Your task to perform on an android device: delete a single message in the gmail app Image 0: 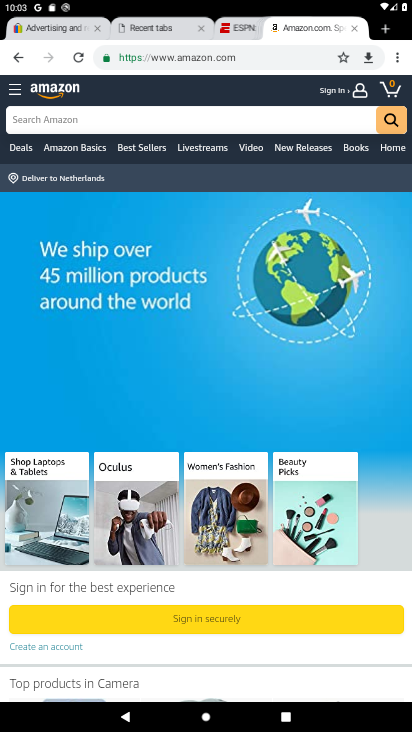
Step 0: click (75, 387)
Your task to perform on an android device: delete a single message in the gmail app Image 1: 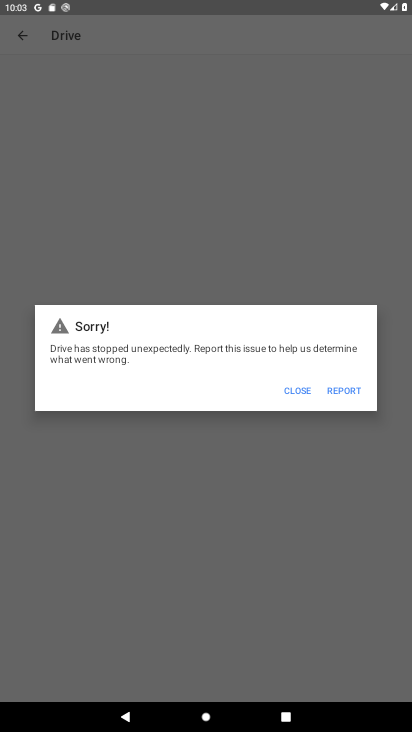
Step 1: press home button
Your task to perform on an android device: delete a single message in the gmail app Image 2: 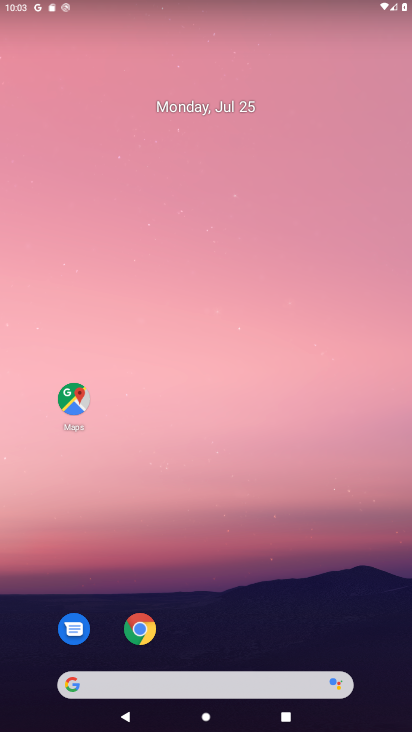
Step 2: drag from (297, 577) to (213, 106)
Your task to perform on an android device: delete a single message in the gmail app Image 3: 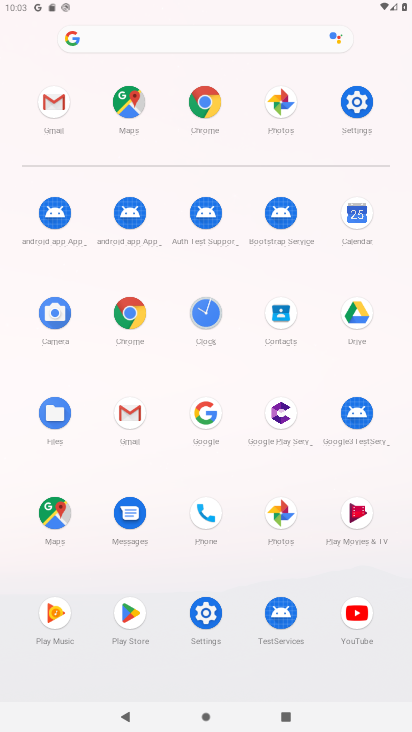
Step 3: drag from (254, 615) to (273, 81)
Your task to perform on an android device: delete a single message in the gmail app Image 4: 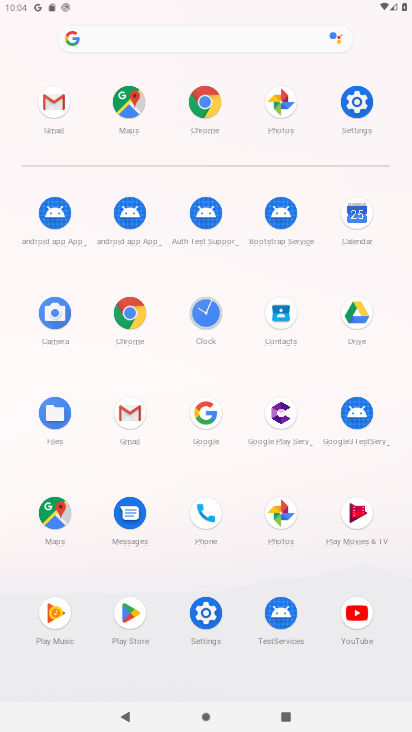
Step 4: click (53, 123)
Your task to perform on an android device: delete a single message in the gmail app Image 5: 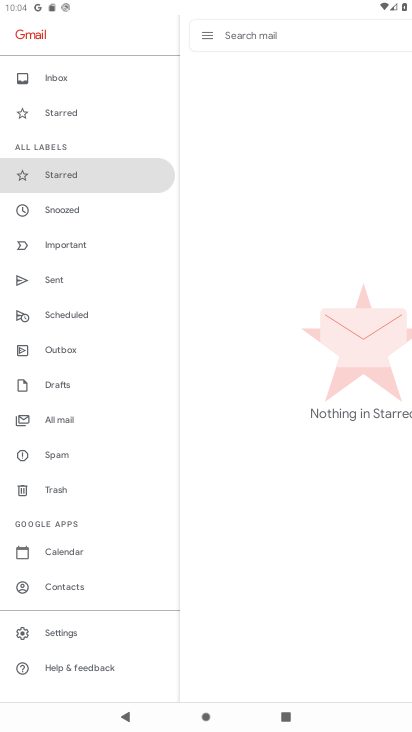
Step 5: click (85, 418)
Your task to perform on an android device: delete a single message in the gmail app Image 6: 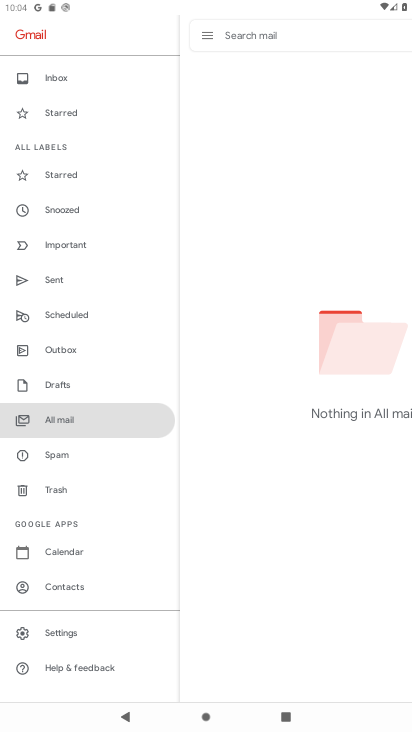
Step 6: task complete